Your task to perform on an android device: turn off priority inbox in the gmail app Image 0: 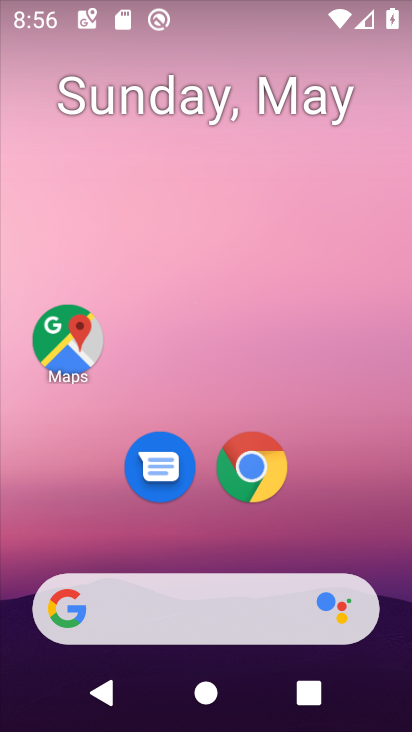
Step 0: drag from (364, 527) to (370, 62)
Your task to perform on an android device: turn off priority inbox in the gmail app Image 1: 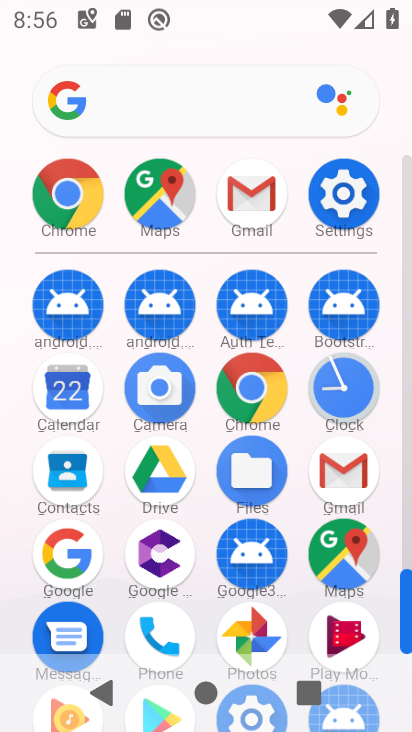
Step 1: click (342, 489)
Your task to perform on an android device: turn off priority inbox in the gmail app Image 2: 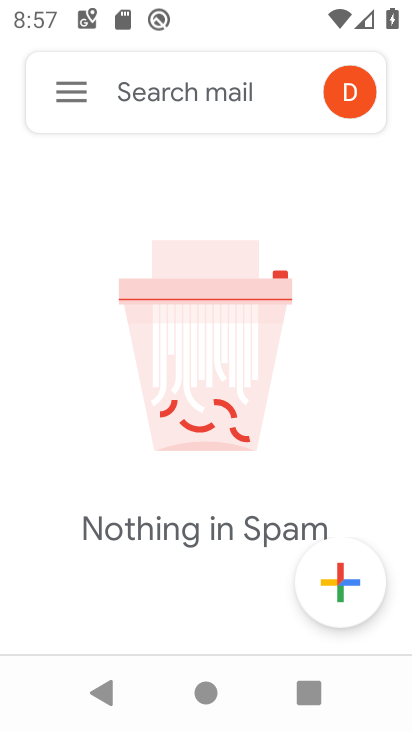
Step 2: click (65, 98)
Your task to perform on an android device: turn off priority inbox in the gmail app Image 3: 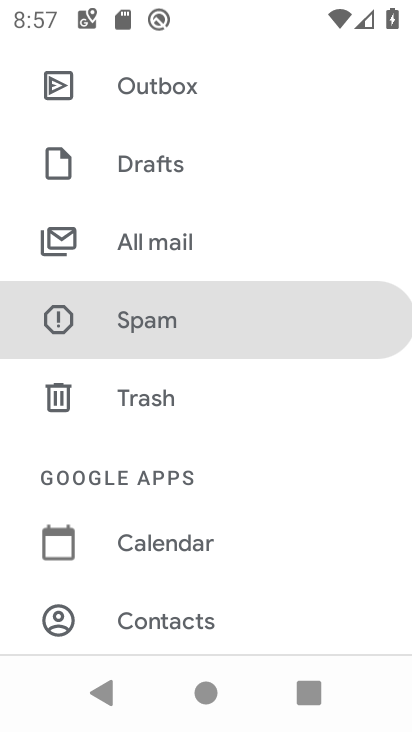
Step 3: drag from (224, 581) to (284, 237)
Your task to perform on an android device: turn off priority inbox in the gmail app Image 4: 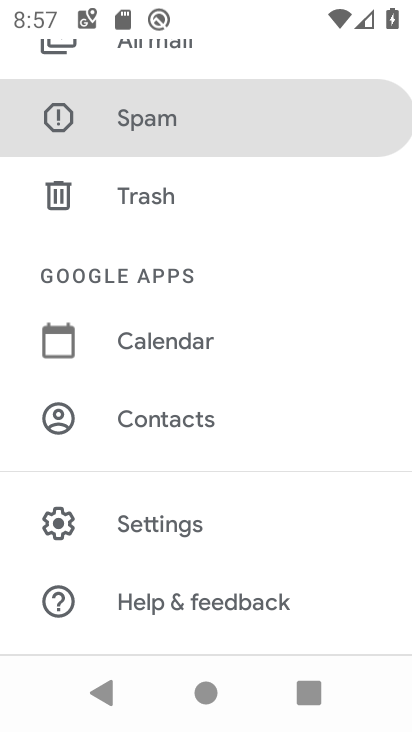
Step 4: click (214, 539)
Your task to perform on an android device: turn off priority inbox in the gmail app Image 5: 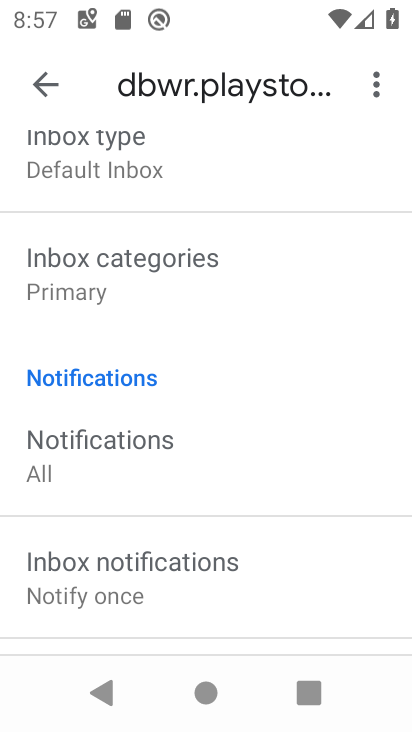
Step 5: click (169, 280)
Your task to perform on an android device: turn off priority inbox in the gmail app Image 6: 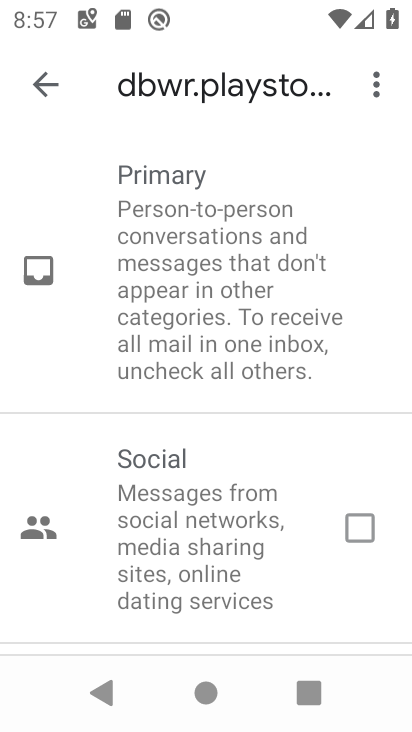
Step 6: click (52, 83)
Your task to perform on an android device: turn off priority inbox in the gmail app Image 7: 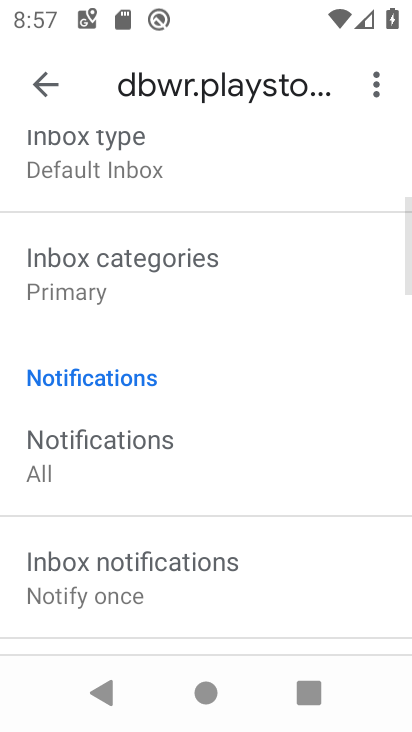
Step 7: drag from (184, 260) to (204, 594)
Your task to perform on an android device: turn off priority inbox in the gmail app Image 8: 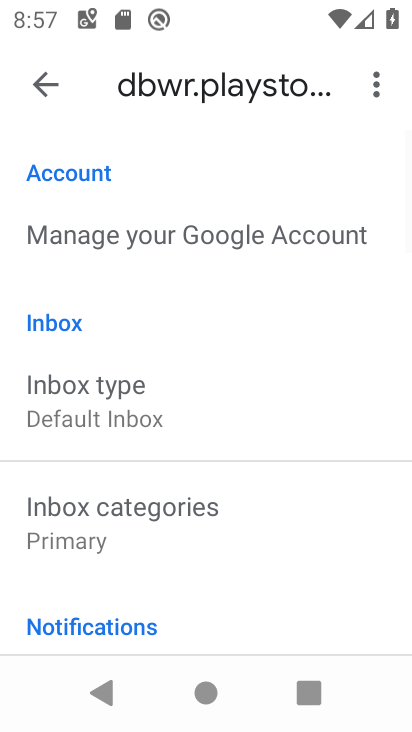
Step 8: drag from (196, 304) to (238, 630)
Your task to perform on an android device: turn off priority inbox in the gmail app Image 9: 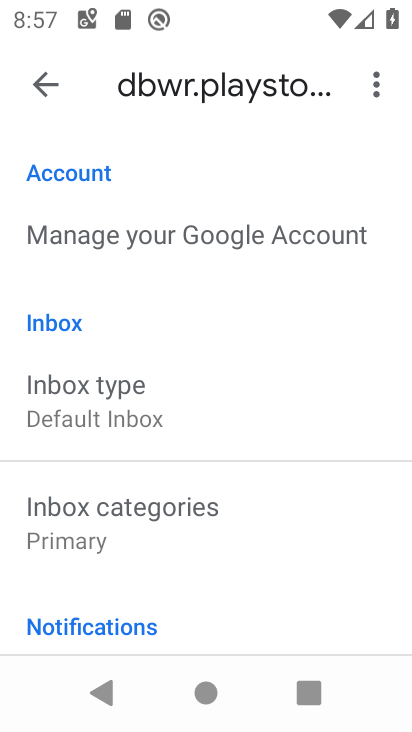
Step 9: click (137, 390)
Your task to perform on an android device: turn off priority inbox in the gmail app Image 10: 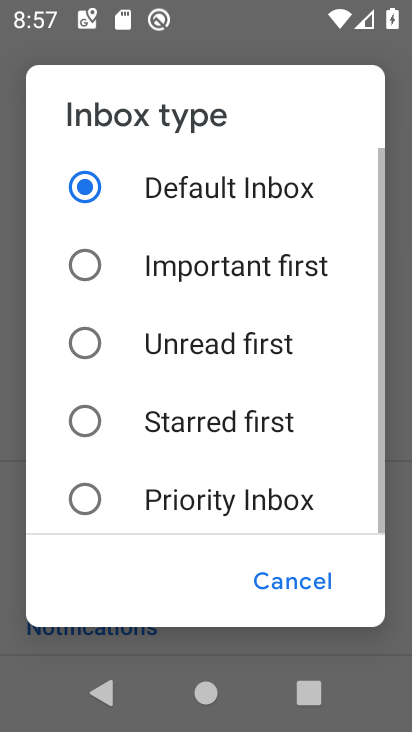
Step 10: task complete